Your task to perform on an android device: Open maps Image 0: 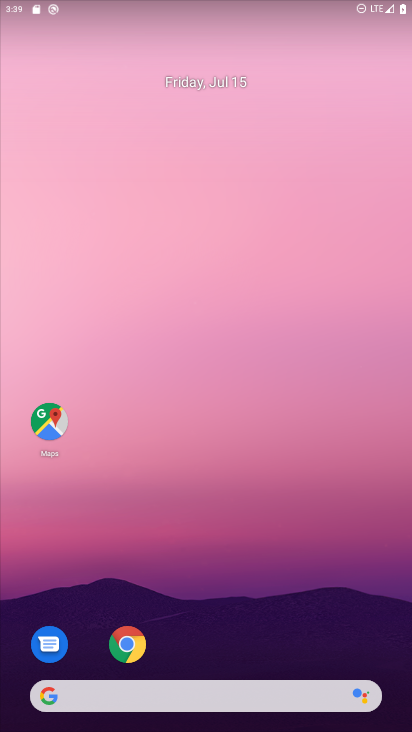
Step 0: click (44, 420)
Your task to perform on an android device: Open maps Image 1: 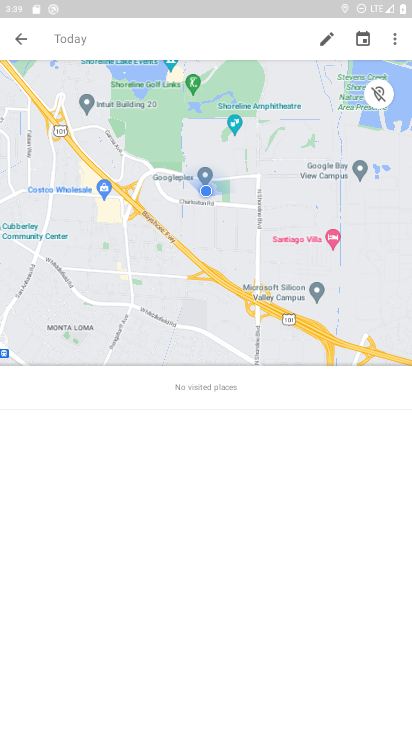
Step 1: task complete